Your task to perform on an android device: Go to wifi settings Image 0: 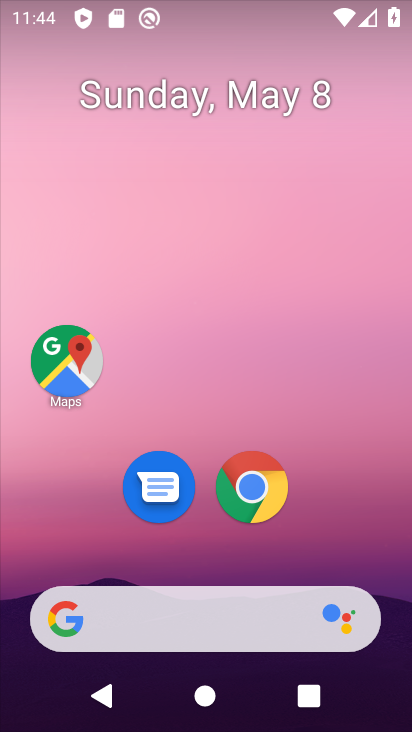
Step 0: drag from (379, 510) to (384, 117)
Your task to perform on an android device: Go to wifi settings Image 1: 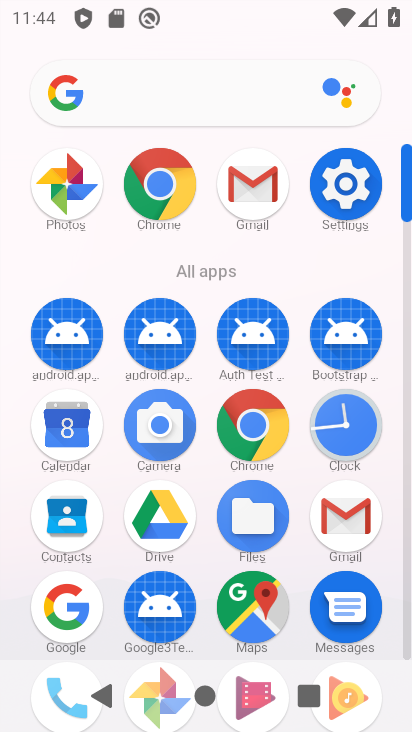
Step 1: click (347, 171)
Your task to perform on an android device: Go to wifi settings Image 2: 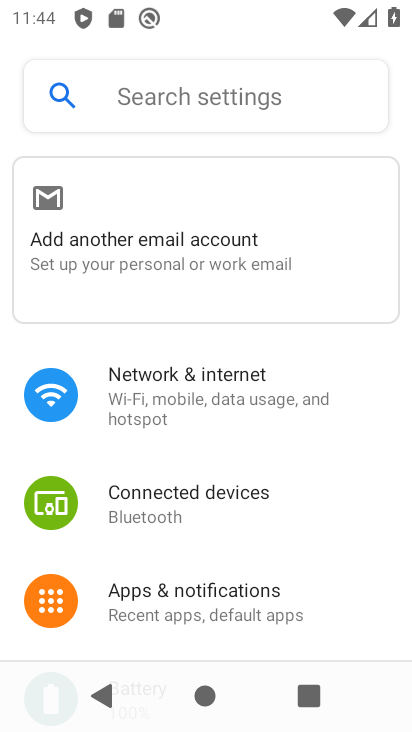
Step 2: click (221, 416)
Your task to perform on an android device: Go to wifi settings Image 3: 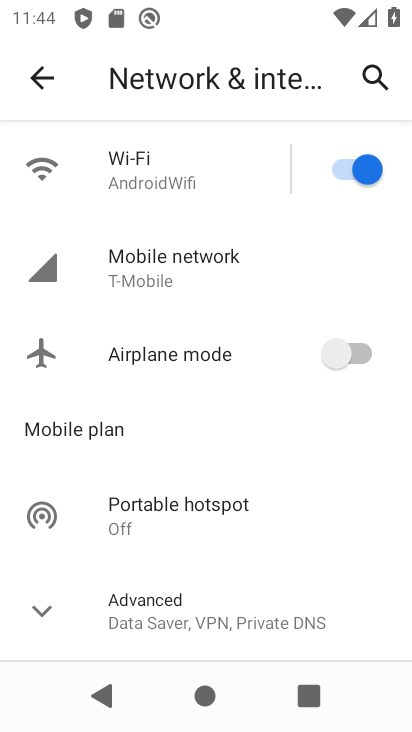
Step 3: click (165, 179)
Your task to perform on an android device: Go to wifi settings Image 4: 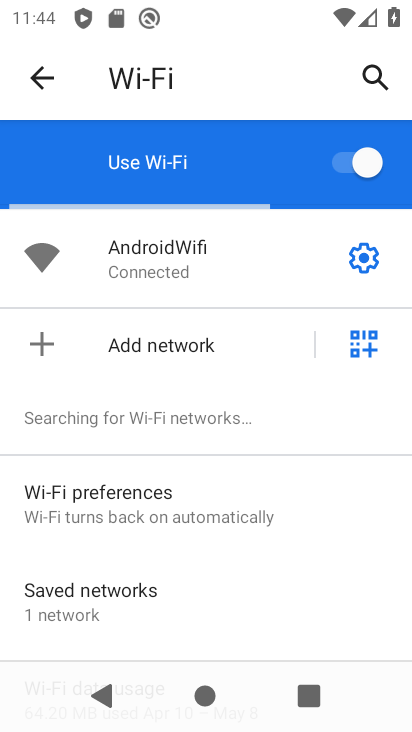
Step 4: task complete